Your task to perform on an android device: allow notifications from all sites in the chrome app Image 0: 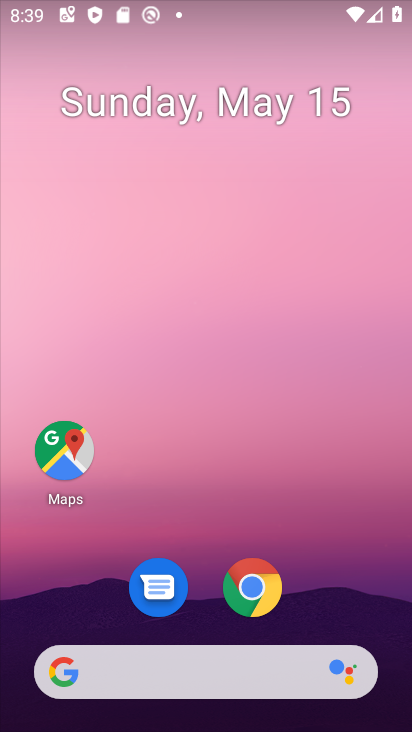
Step 0: drag from (369, 605) to (273, 2)
Your task to perform on an android device: allow notifications from all sites in the chrome app Image 1: 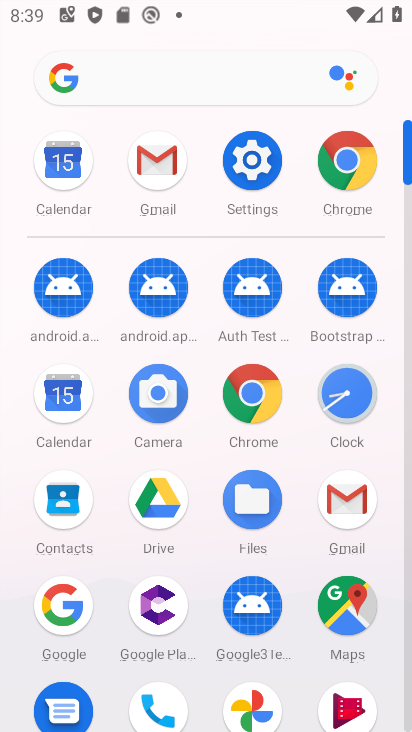
Step 1: click (343, 168)
Your task to perform on an android device: allow notifications from all sites in the chrome app Image 2: 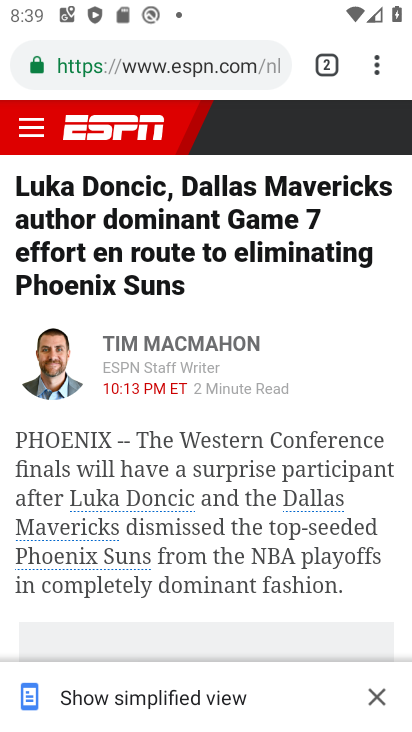
Step 2: press back button
Your task to perform on an android device: allow notifications from all sites in the chrome app Image 3: 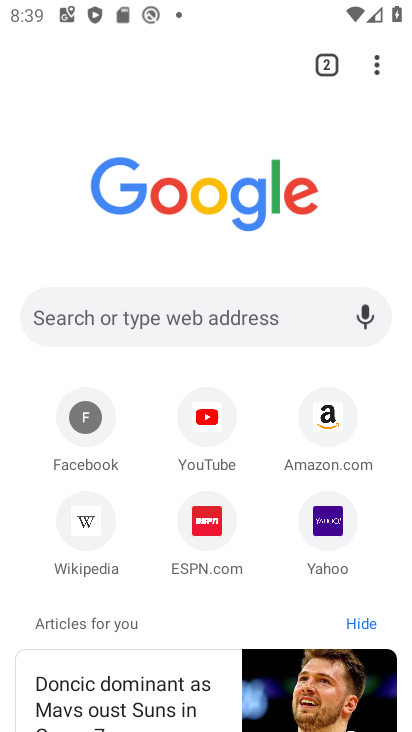
Step 3: click (377, 62)
Your task to perform on an android device: allow notifications from all sites in the chrome app Image 4: 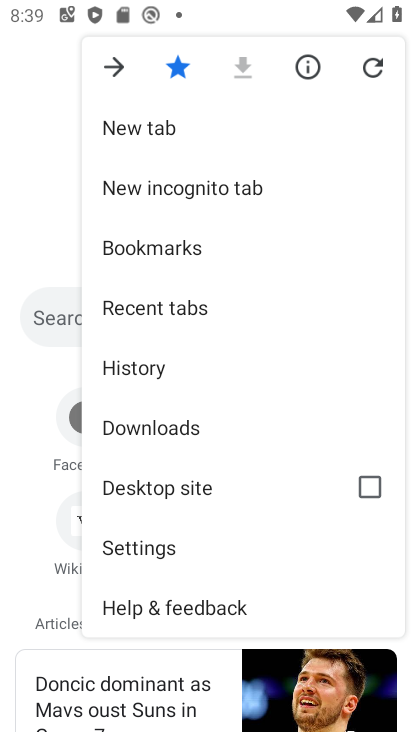
Step 4: click (220, 552)
Your task to perform on an android device: allow notifications from all sites in the chrome app Image 5: 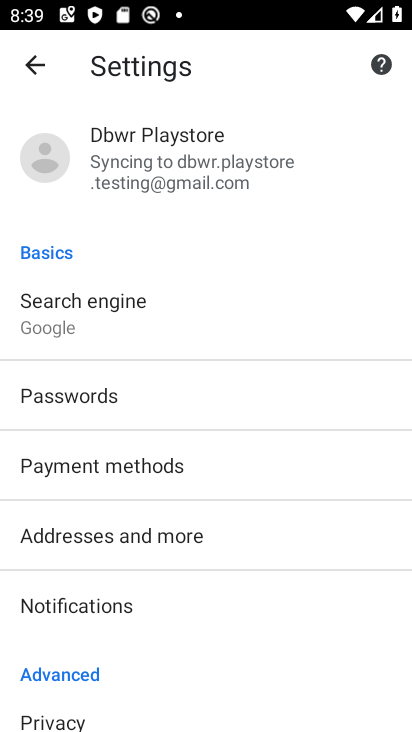
Step 5: drag from (133, 601) to (98, 310)
Your task to perform on an android device: allow notifications from all sites in the chrome app Image 6: 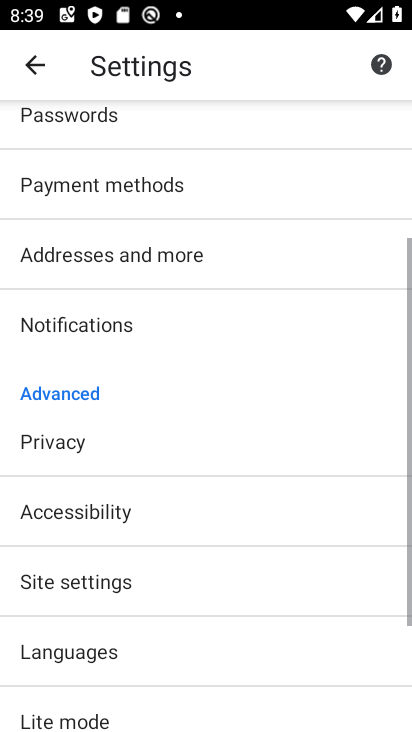
Step 6: click (98, 310)
Your task to perform on an android device: allow notifications from all sites in the chrome app Image 7: 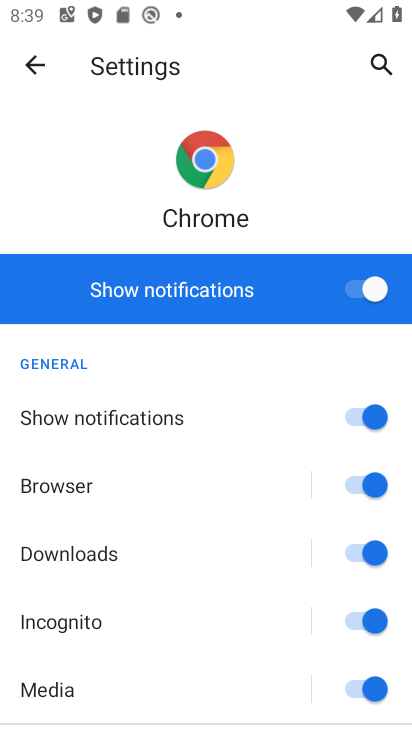
Step 7: task complete